Your task to perform on an android device: Open Youtube and go to "Your channel" Image 0: 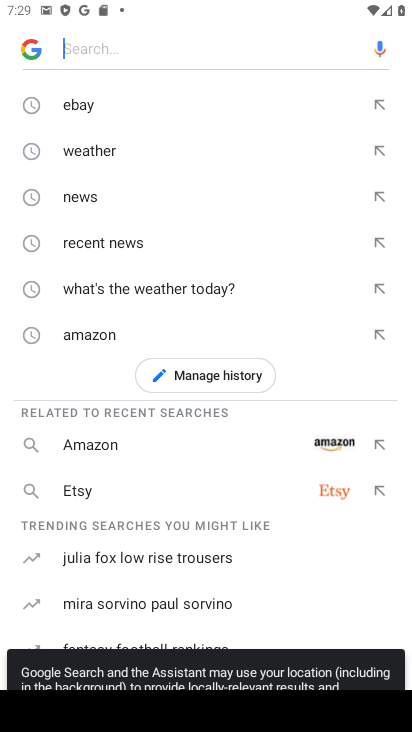
Step 0: press home button
Your task to perform on an android device: Open Youtube and go to "Your channel" Image 1: 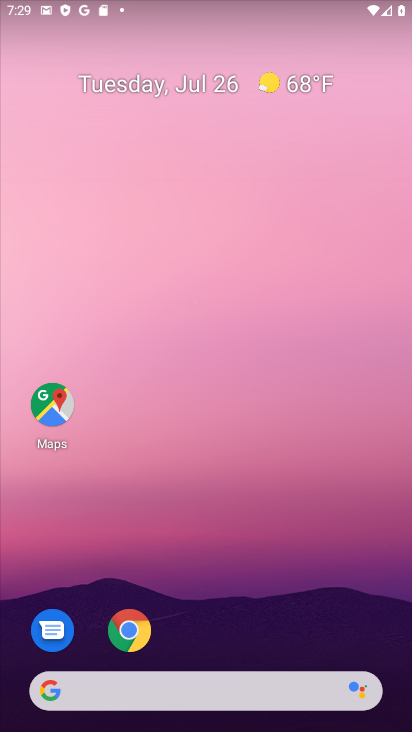
Step 1: drag from (362, 614) to (368, 76)
Your task to perform on an android device: Open Youtube and go to "Your channel" Image 2: 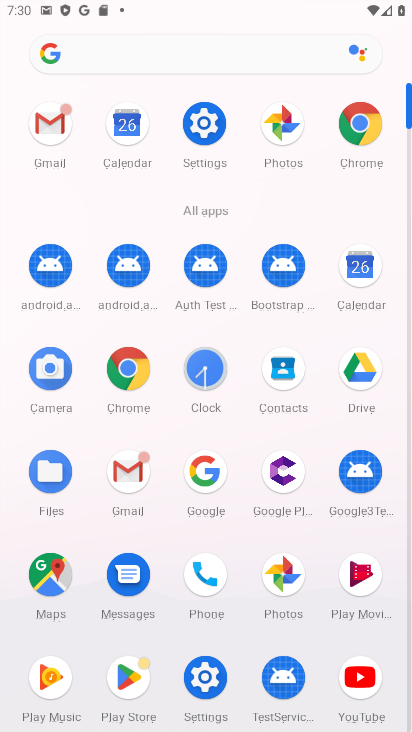
Step 2: click (359, 685)
Your task to perform on an android device: Open Youtube and go to "Your channel" Image 3: 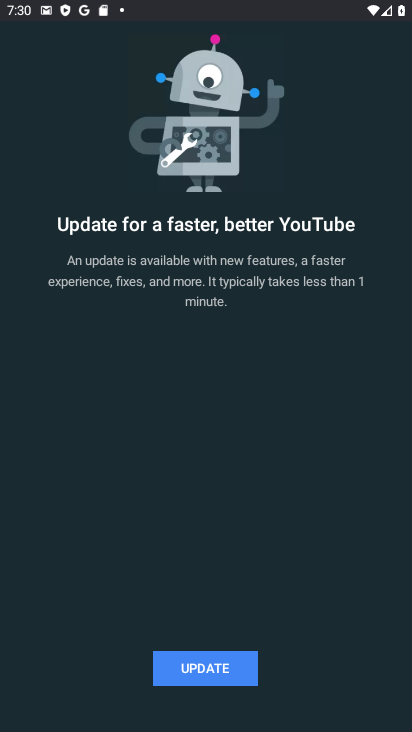
Step 3: click (206, 679)
Your task to perform on an android device: Open Youtube and go to "Your channel" Image 4: 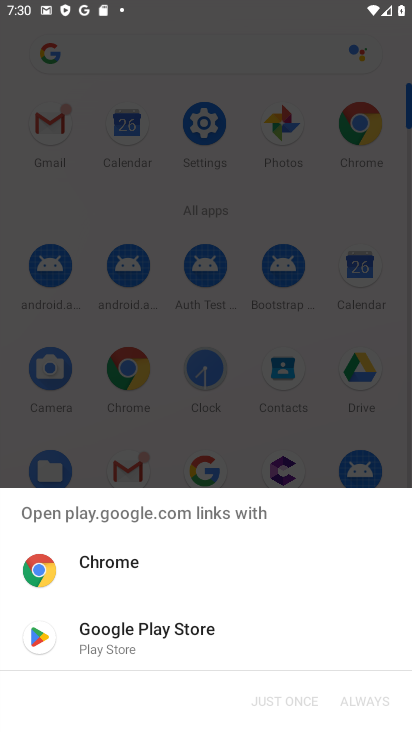
Step 4: click (134, 642)
Your task to perform on an android device: Open Youtube and go to "Your channel" Image 5: 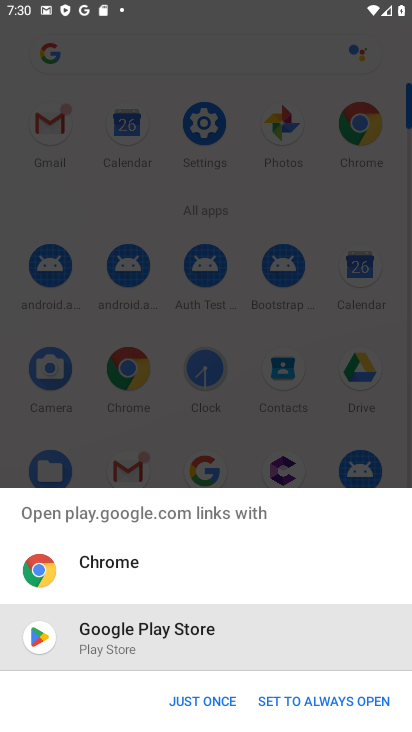
Step 5: click (208, 705)
Your task to perform on an android device: Open Youtube and go to "Your channel" Image 6: 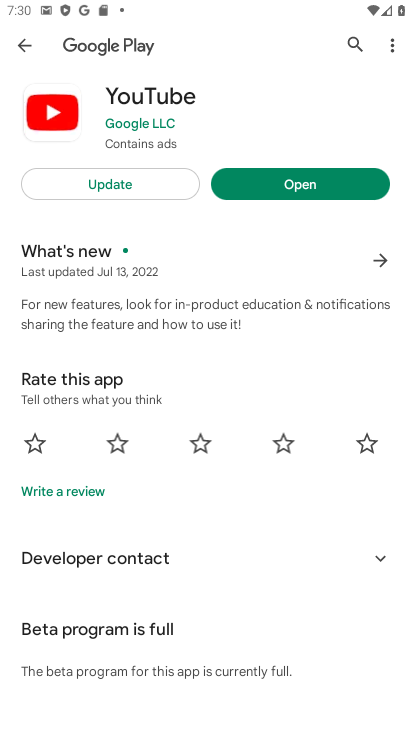
Step 6: click (140, 176)
Your task to perform on an android device: Open Youtube and go to "Your channel" Image 7: 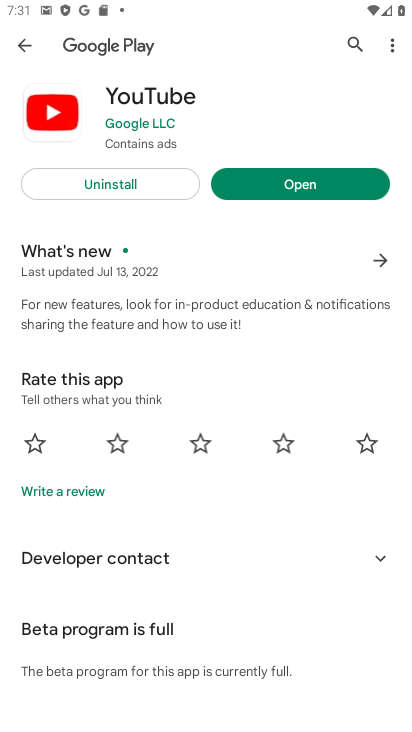
Step 7: click (353, 183)
Your task to perform on an android device: Open Youtube and go to "Your channel" Image 8: 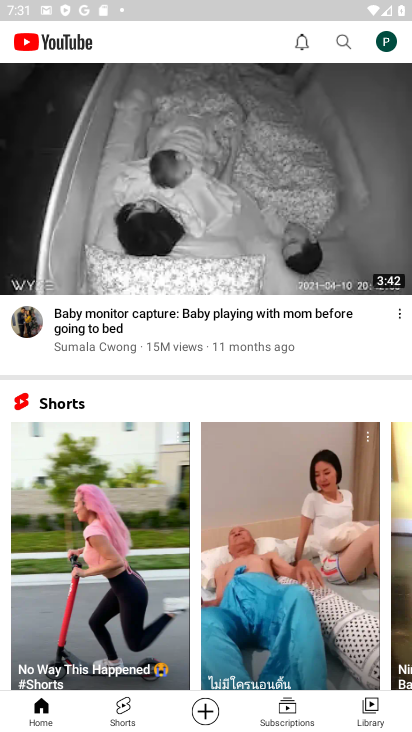
Step 8: click (381, 37)
Your task to perform on an android device: Open Youtube and go to "Your channel" Image 9: 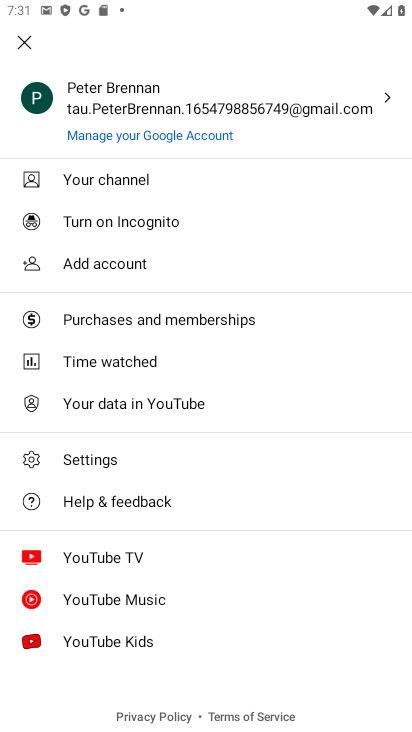
Step 9: click (190, 178)
Your task to perform on an android device: Open Youtube and go to "Your channel" Image 10: 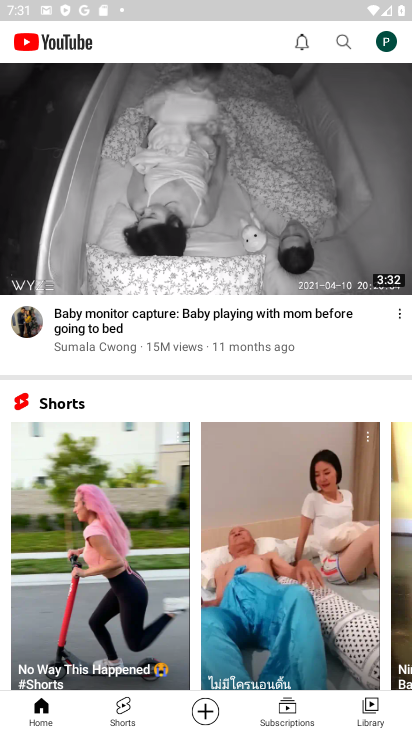
Step 10: task complete